Your task to perform on an android device: Go to notification settings Image 0: 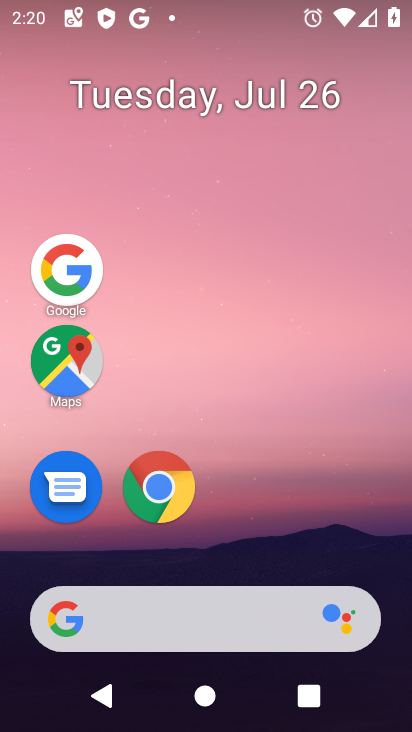
Step 0: drag from (108, 547) to (149, 202)
Your task to perform on an android device: Go to notification settings Image 1: 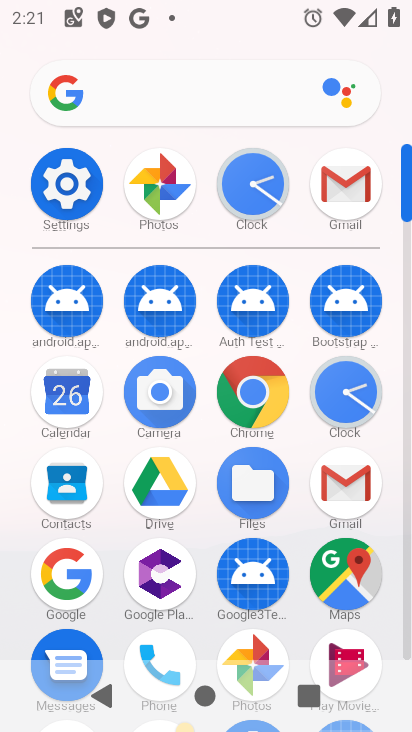
Step 1: click (70, 211)
Your task to perform on an android device: Go to notification settings Image 2: 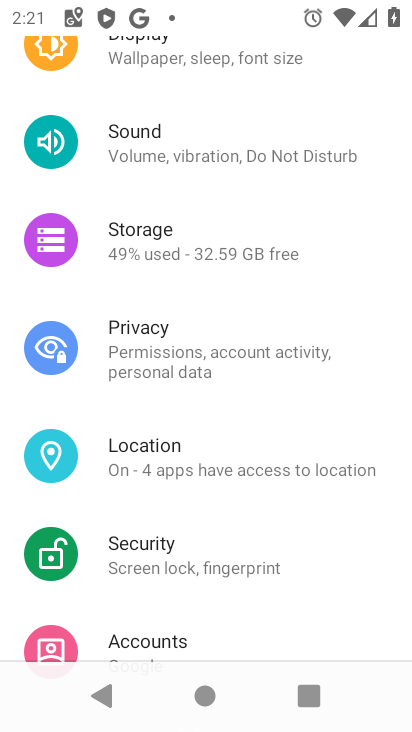
Step 2: drag from (182, 279) to (178, 712)
Your task to perform on an android device: Go to notification settings Image 3: 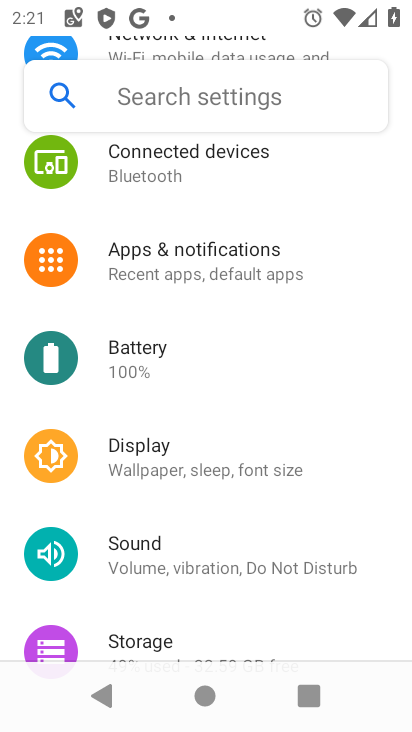
Step 3: drag from (185, 315) to (191, 625)
Your task to perform on an android device: Go to notification settings Image 4: 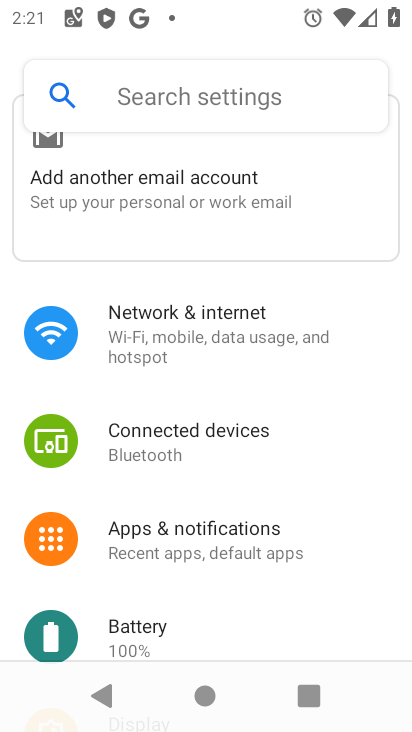
Step 4: click (138, 541)
Your task to perform on an android device: Go to notification settings Image 5: 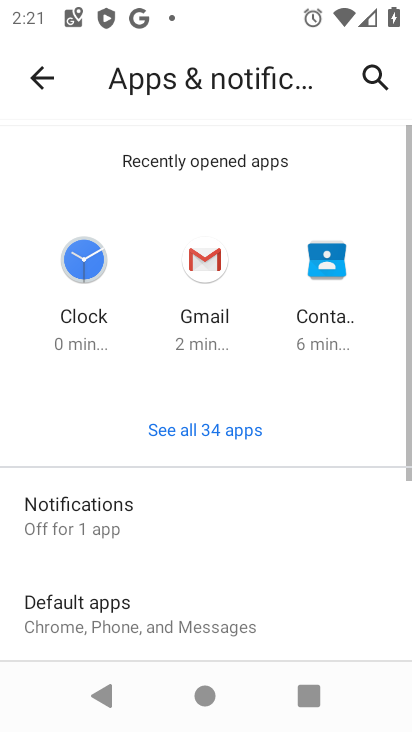
Step 5: drag from (141, 424) to (176, 178)
Your task to perform on an android device: Go to notification settings Image 6: 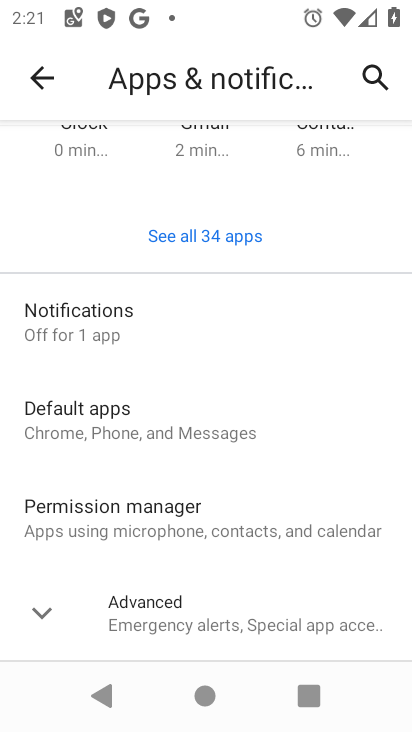
Step 6: click (114, 326)
Your task to perform on an android device: Go to notification settings Image 7: 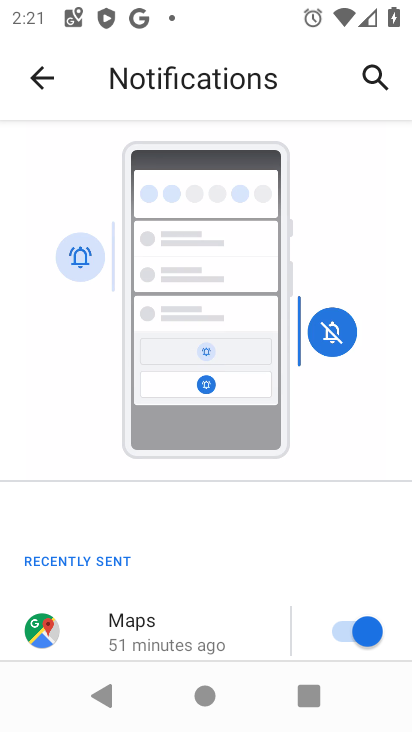
Step 7: task complete